Your task to perform on an android device: Is it going to rain today? Image 0: 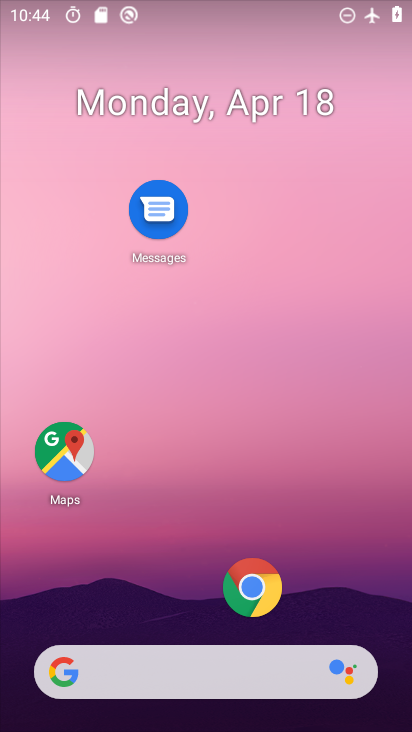
Step 0: click (205, 683)
Your task to perform on an android device: Is it going to rain today? Image 1: 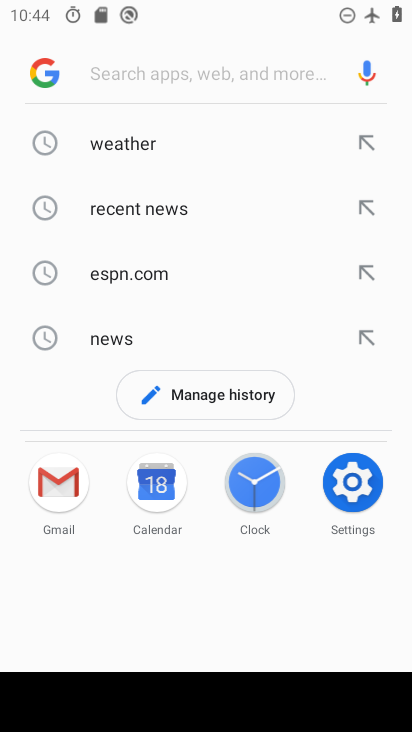
Step 1: type "Is it going to rain today?"
Your task to perform on an android device: Is it going to rain today? Image 2: 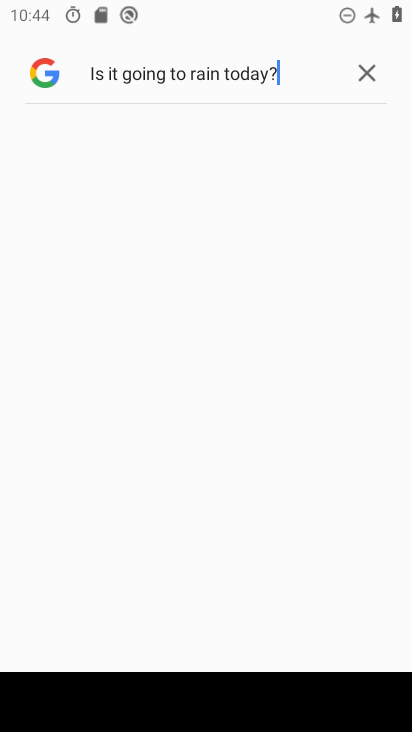
Step 2: task complete